Your task to perform on an android device: turn off wifi Image 0: 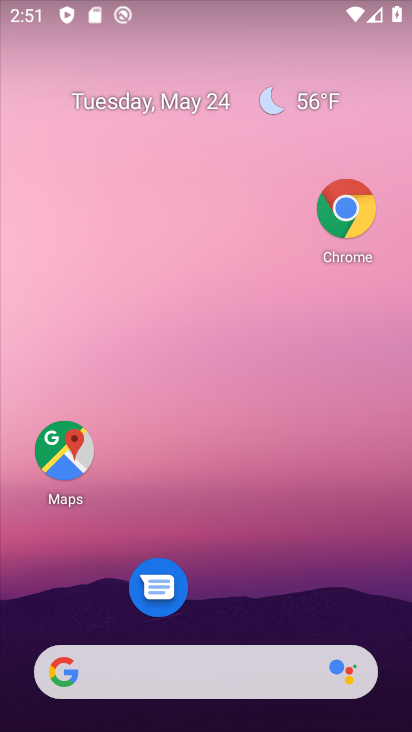
Step 0: drag from (221, 627) to (282, 191)
Your task to perform on an android device: turn off wifi Image 1: 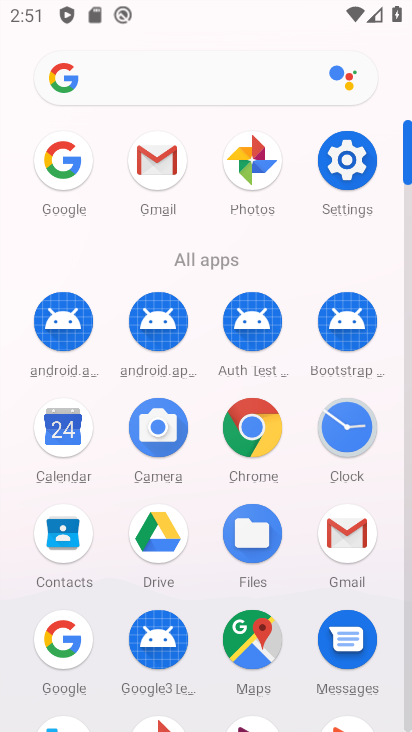
Step 1: click (350, 158)
Your task to perform on an android device: turn off wifi Image 2: 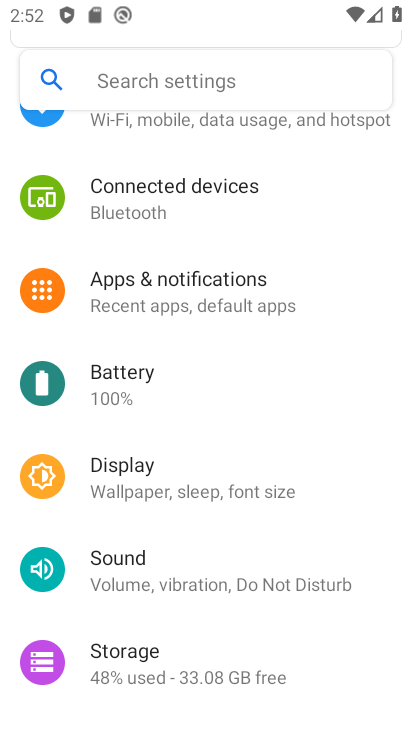
Step 2: press home button
Your task to perform on an android device: turn off wifi Image 3: 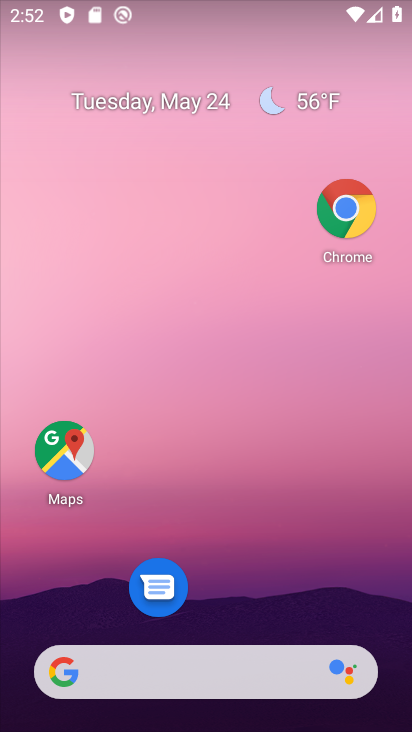
Step 3: drag from (220, 609) to (282, 280)
Your task to perform on an android device: turn off wifi Image 4: 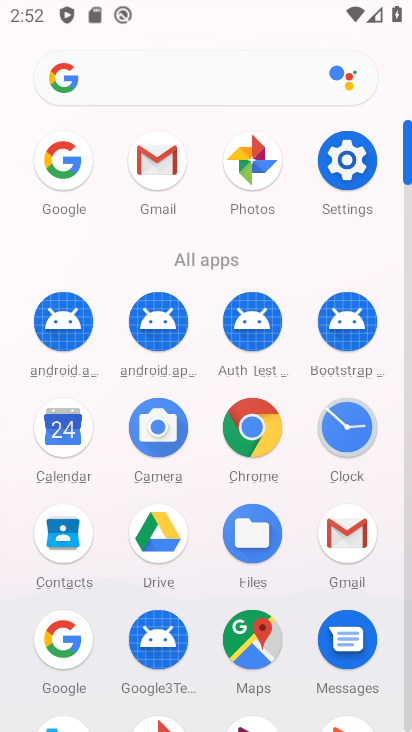
Step 4: click (346, 153)
Your task to perform on an android device: turn off wifi Image 5: 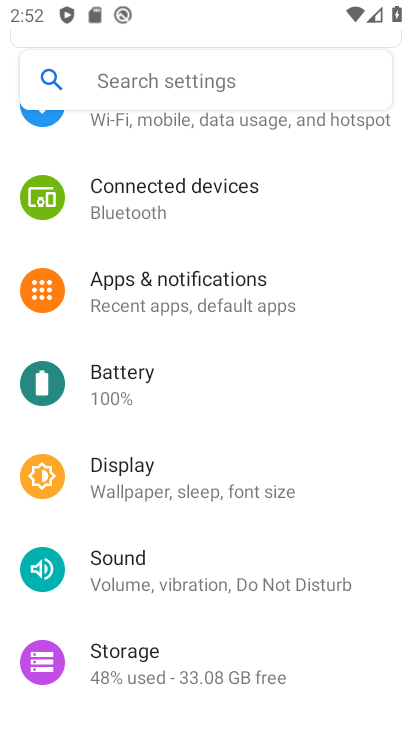
Step 5: drag from (230, 163) to (169, 546)
Your task to perform on an android device: turn off wifi Image 6: 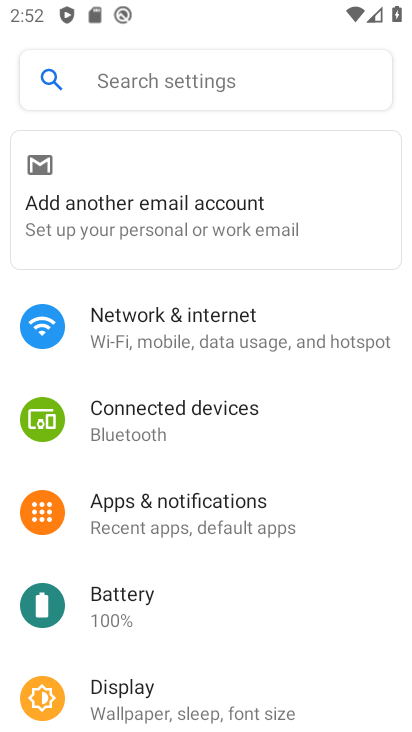
Step 6: click (216, 325)
Your task to perform on an android device: turn off wifi Image 7: 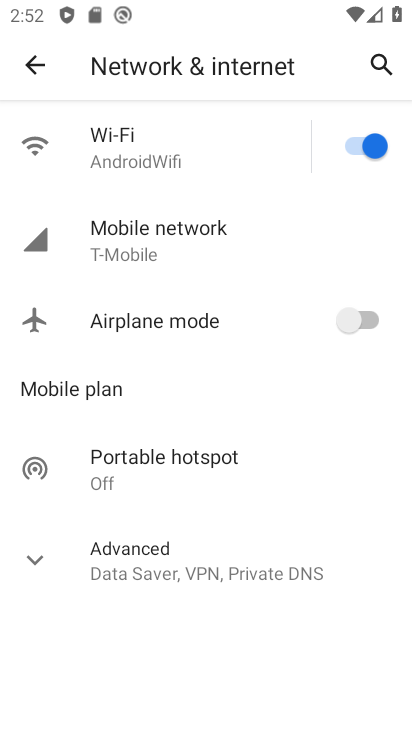
Step 7: click (347, 146)
Your task to perform on an android device: turn off wifi Image 8: 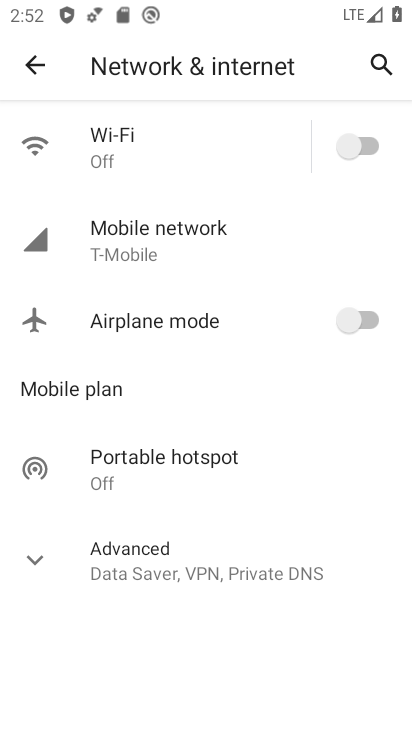
Step 8: task complete